Your task to perform on an android device: Open sound settings Image 0: 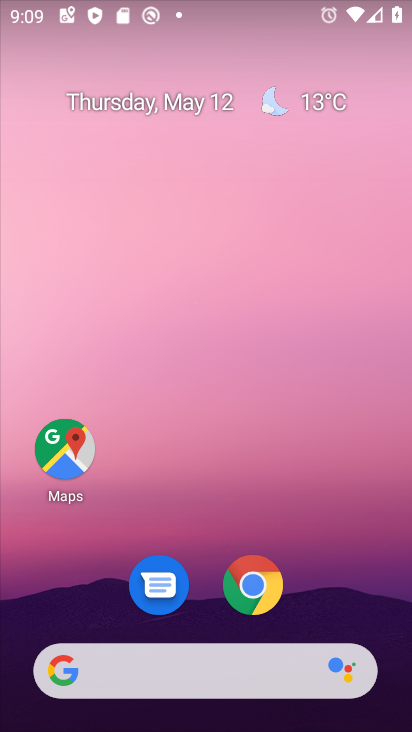
Step 0: drag from (360, 553) to (261, 74)
Your task to perform on an android device: Open sound settings Image 1: 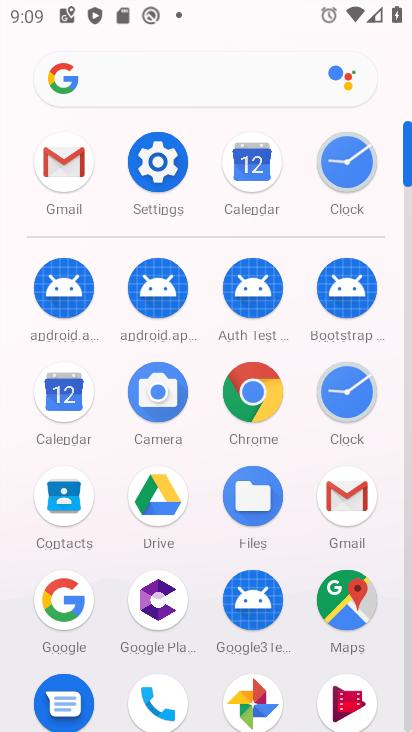
Step 1: click (164, 166)
Your task to perform on an android device: Open sound settings Image 2: 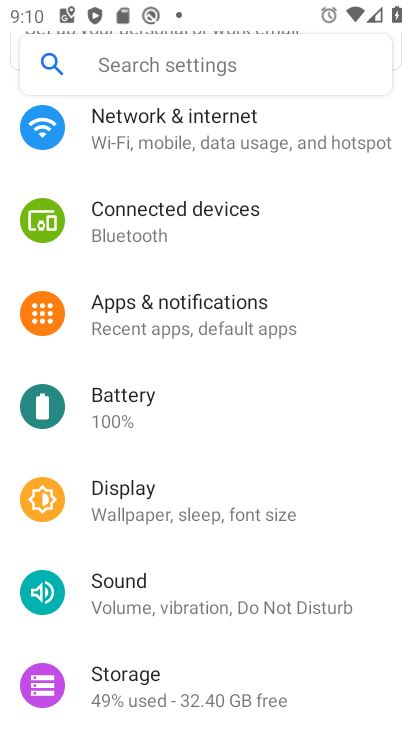
Step 2: click (174, 586)
Your task to perform on an android device: Open sound settings Image 3: 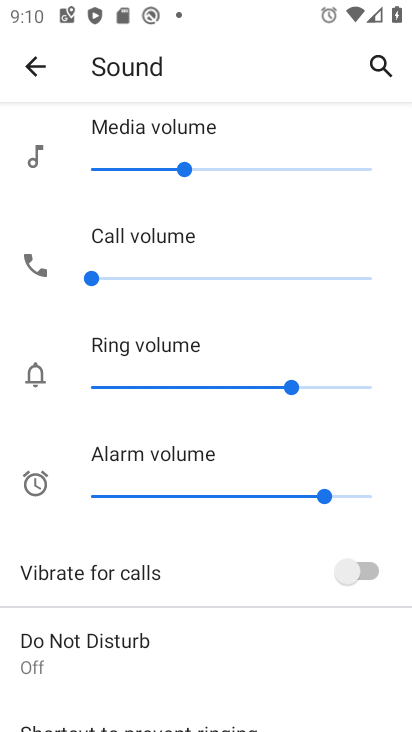
Step 3: task complete